Your task to perform on an android device: open wifi settings Image 0: 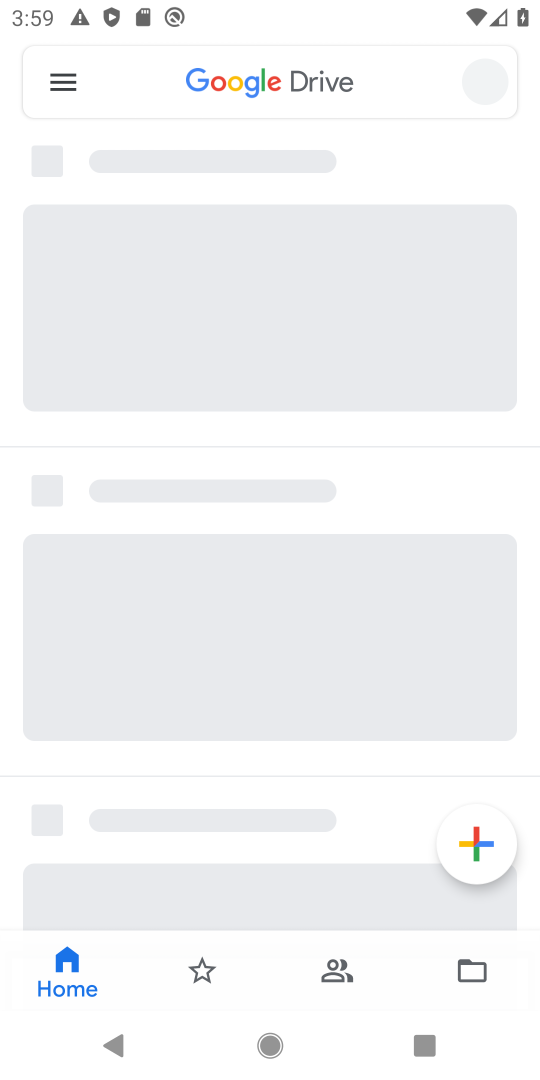
Step 0: press home button
Your task to perform on an android device: open wifi settings Image 1: 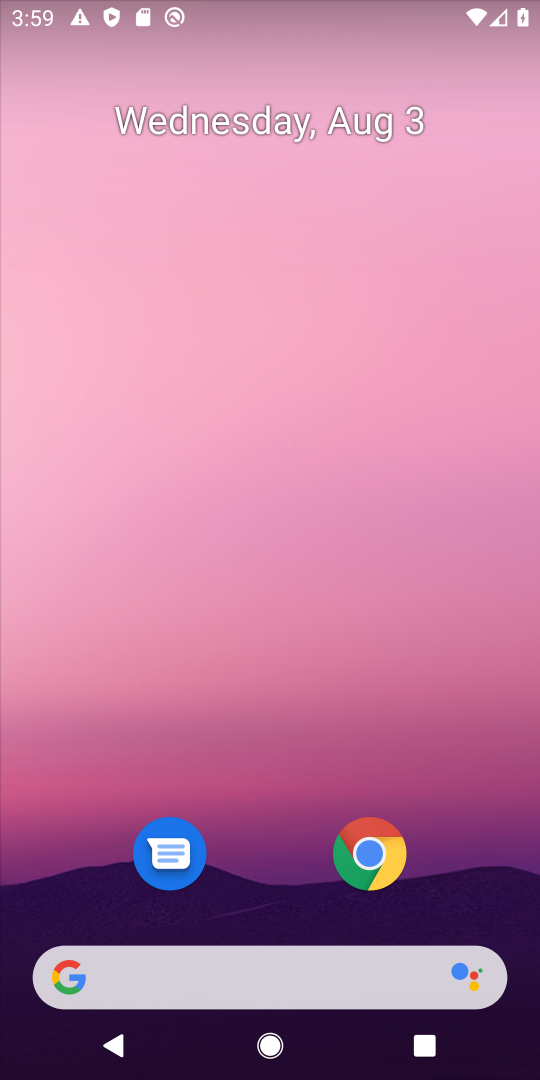
Step 1: drag from (291, 851) to (269, 95)
Your task to perform on an android device: open wifi settings Image 2: 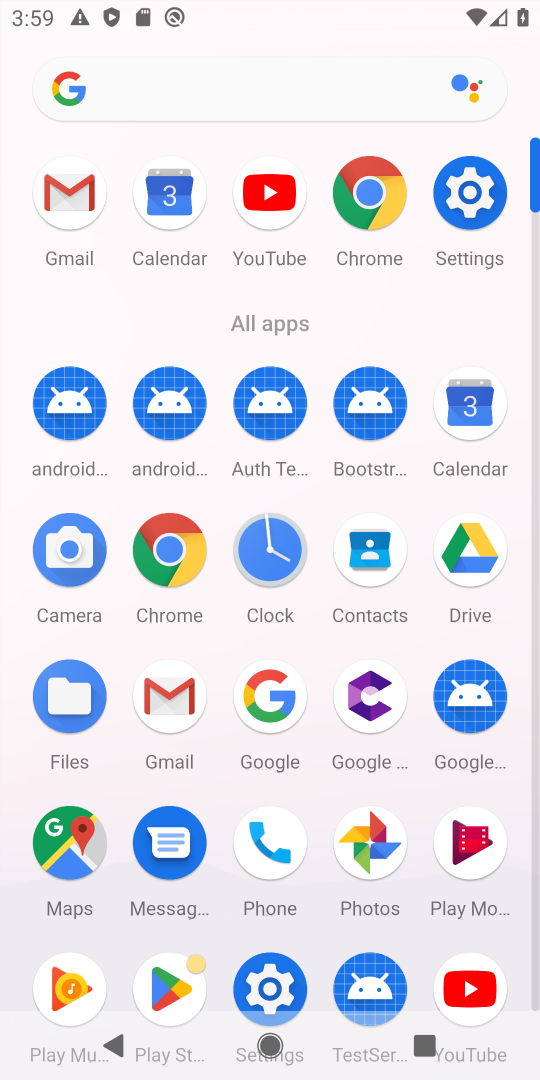
Step 2: click (487, 185)
Your task to perform on an android device: open wifi settings Image 3: 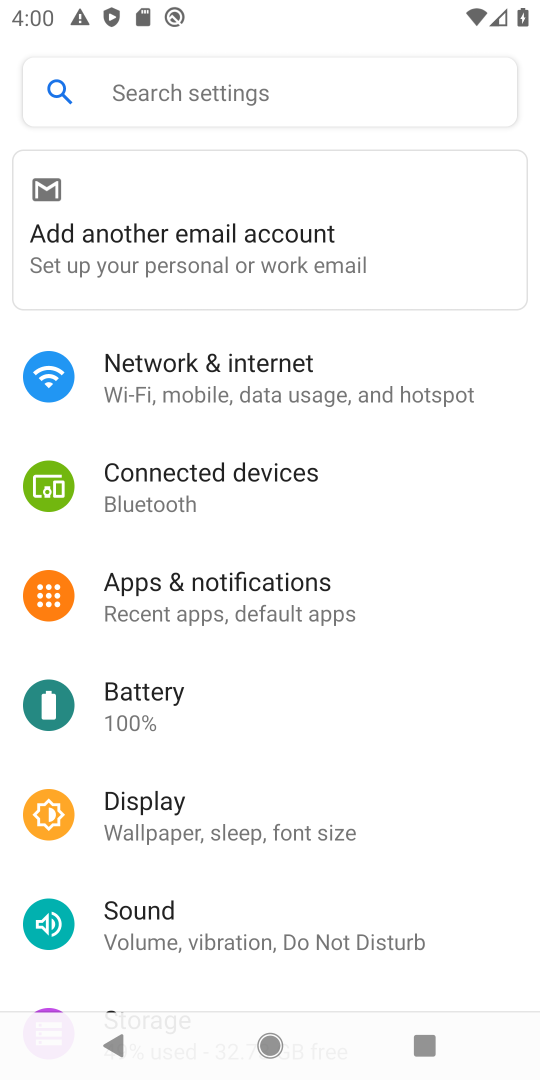
Step 3: click (229, 384)
Your task to perform on an android device: open wifi settings Image 4: 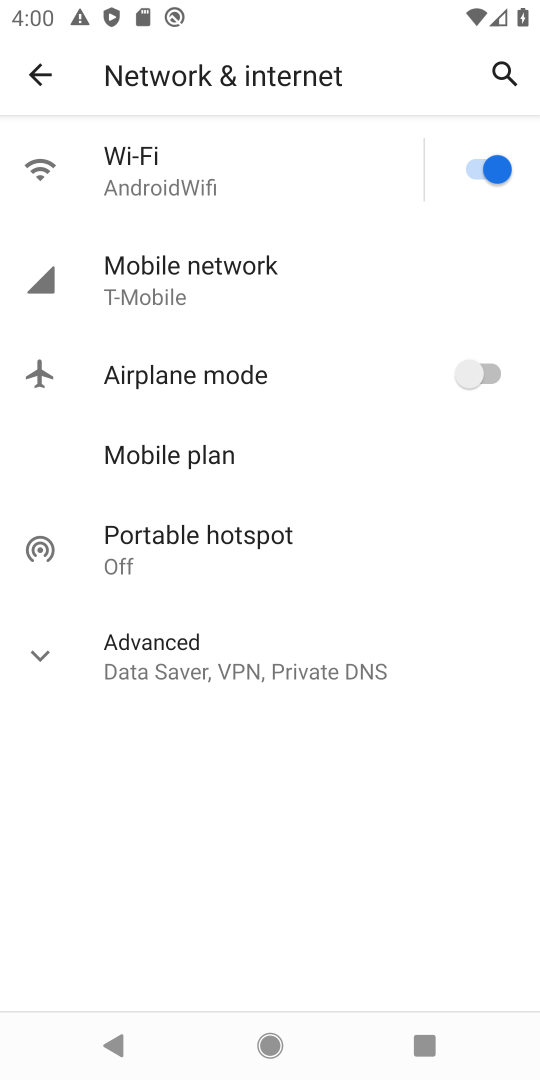
Step 4: click (163, 185)
Your task to perform on an android device: open wifi settings Image 5: 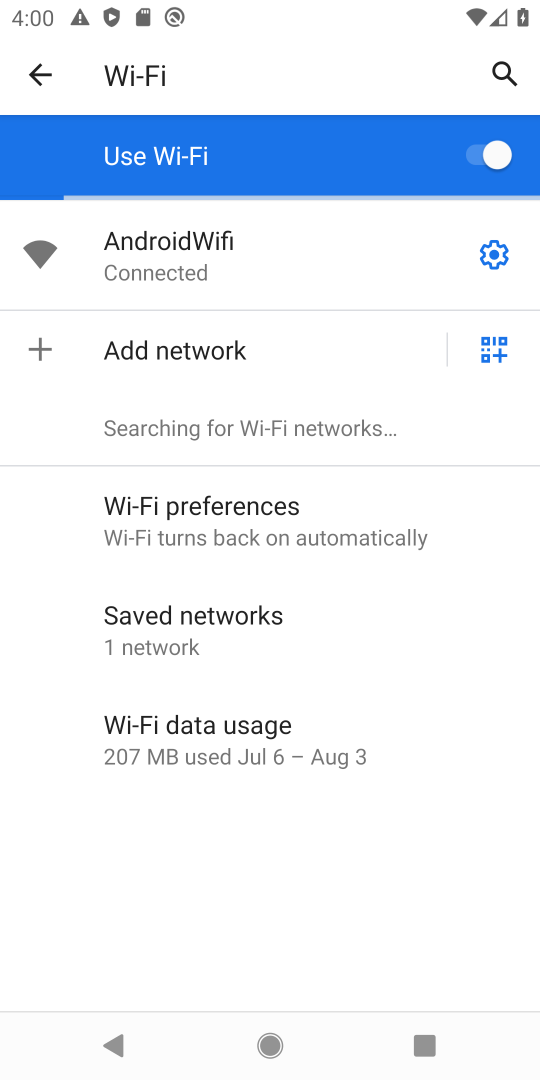
Step 5: task complete